Your task to perform on an android device: turn off location history Image 0: 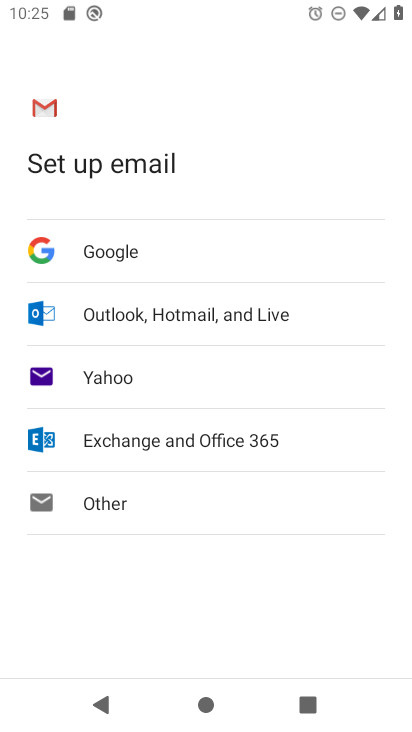
Step 0: press home button
Your task to perform on an android device: turn off location history Image 1: 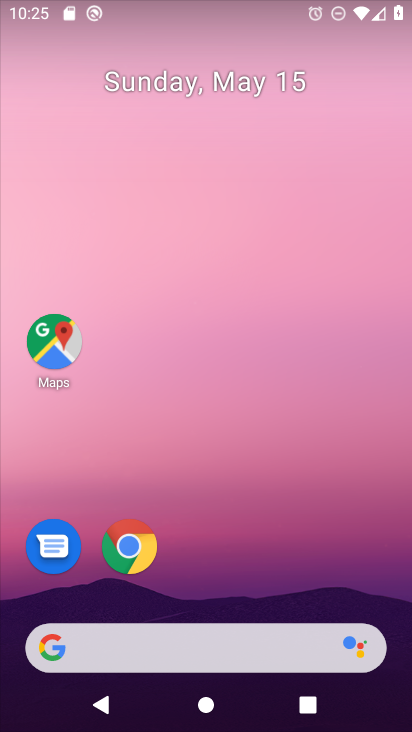
Step 1: drag from (291, 568) to (313, 186)
Your task to perform on an android device: turn off location history Image 2: 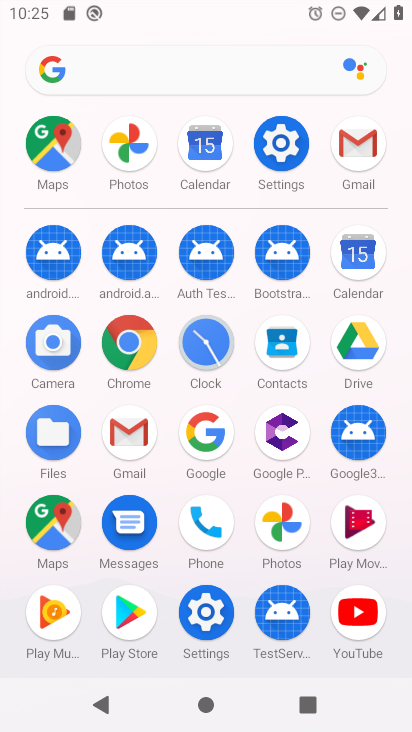
Step 2: click (285, 146)
Your task to perform on an android device: turn off location history Image 3: 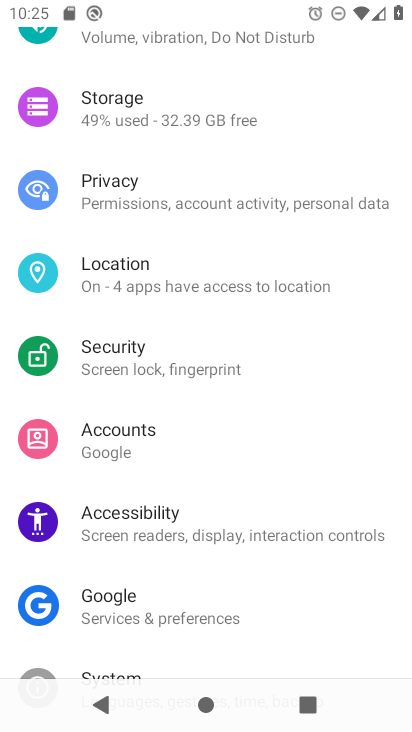
Step 3: click (209, 270)
Your task to perform on an android device: turn off location history Image 4: 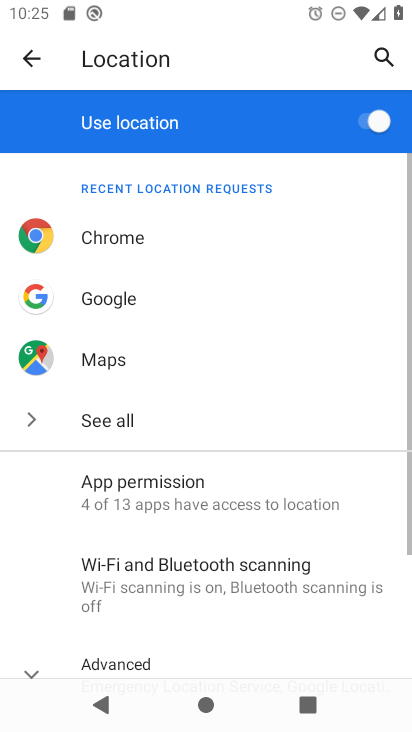
Step 4: click (145, 658)
Your task to perform on an android device: turn off location history Image 5: 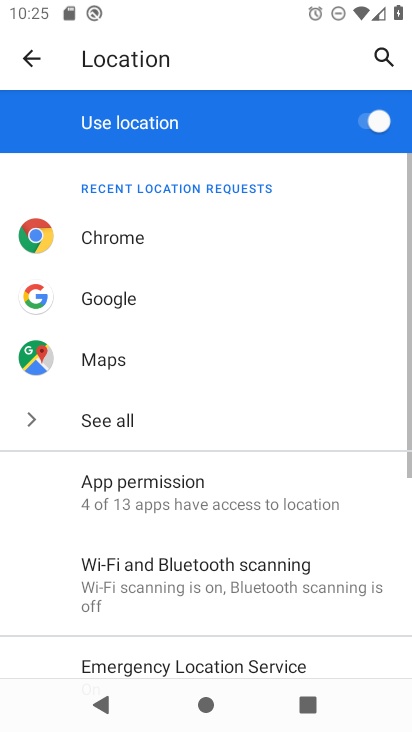
Step 5: drag from (182, 595) to (303, 144)
Your task to perform on an android device: turn off location history Image 6: 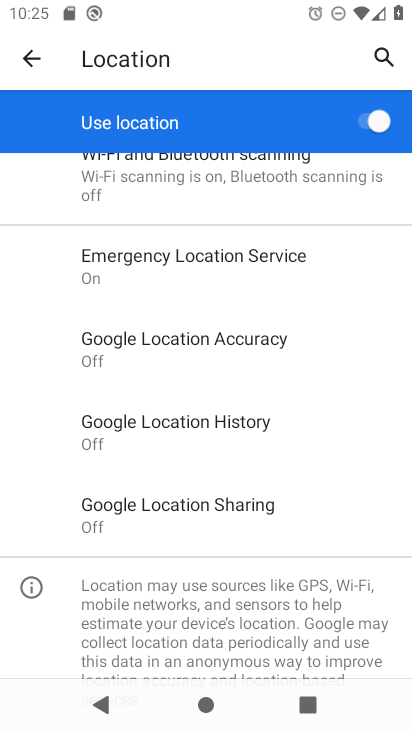
Step 6: click (186, 413)
Your task to perform on an android device: turn off location history Image 7: 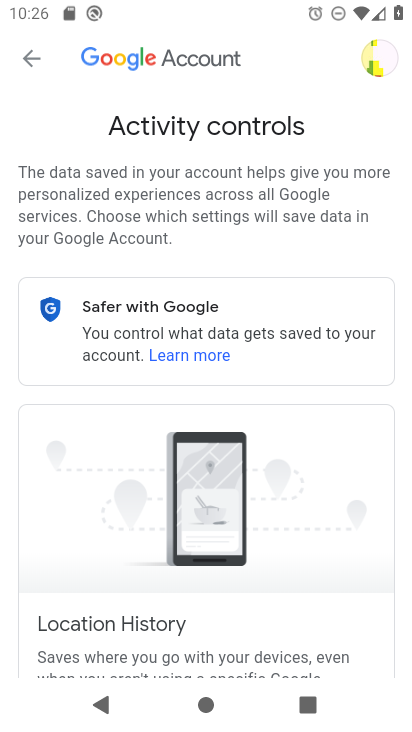
Step 7: task complete